Your task to perform on an android device: turn off location Image 0: 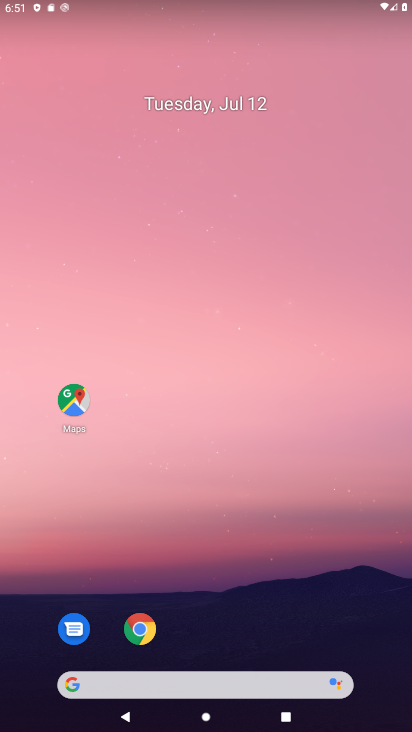
Step 0: press home button
Your task to perform on an android device: turn off location Image 1: 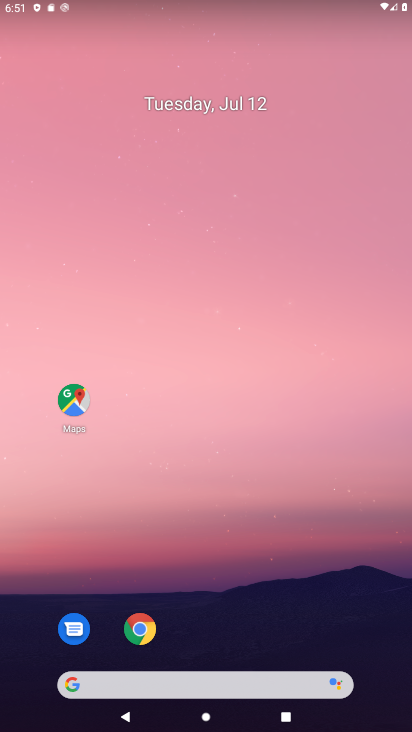
Step 1: drag from (257, 694) to (263, 157)
Your task to perform on an android device: turn off location Image 2: 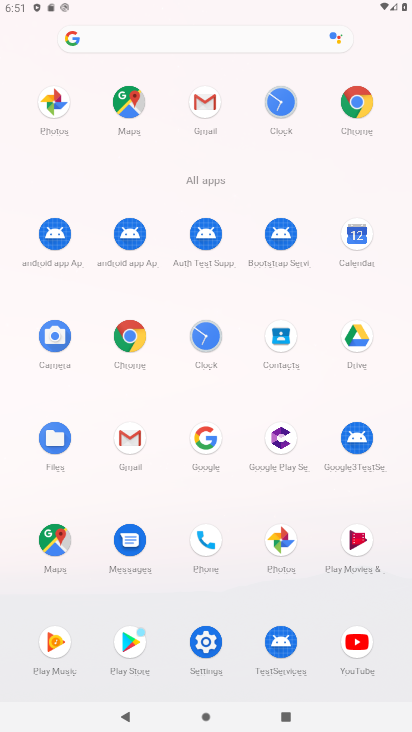
Step 2: click (212, 644)
Your task to perform on an android device: turn off location Image 3: 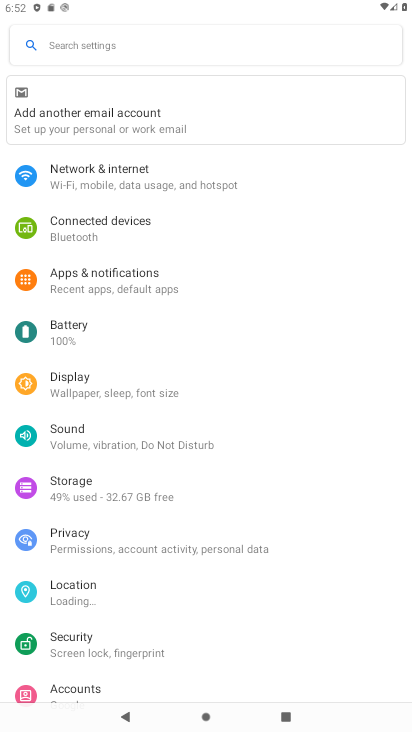
Step 3: click (117, 592)
Your task to perform on an android device: turn off location Image 4: 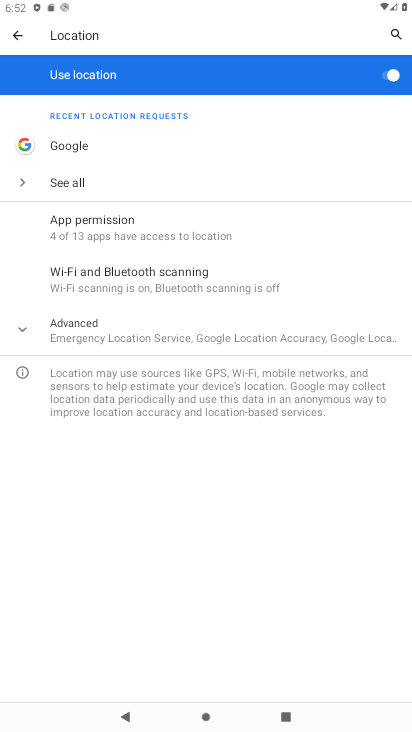
Step 4: click (373, 86)
Your task to perform on an android device: turn off location Image 5: 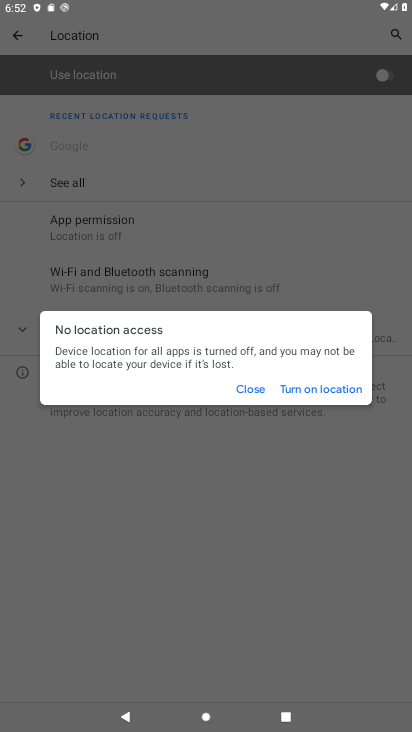
Step 5: task complete